Your task to perform on an android device: turn on translation in the chrome app Image 0: 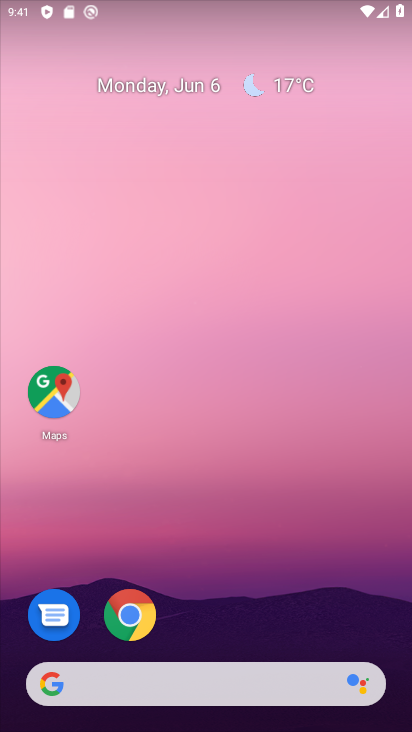
Step 0: click (130, 624)
Your task to perform on an android device: turn on translation in the chrome app Image 1: 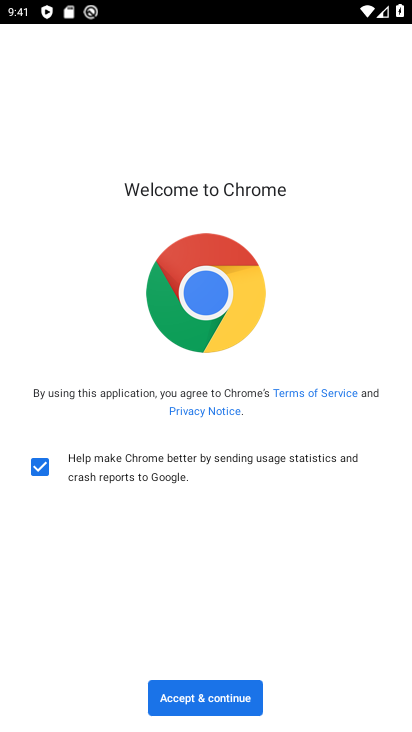
Step 1: click (189, 688)
Your task to perform on an android device: turn on translation in the chrome app Image 2: 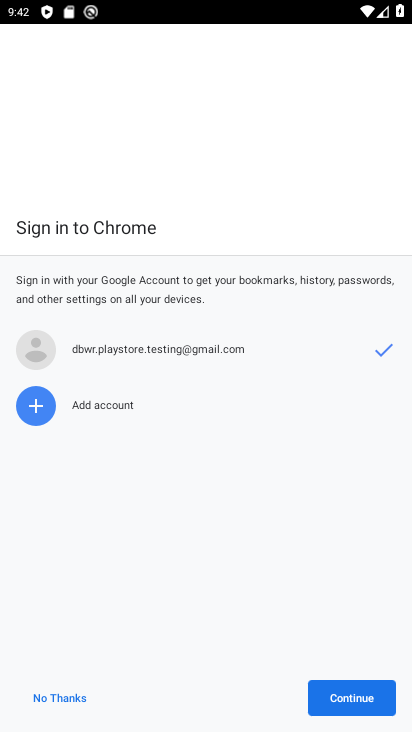
Step 2: click (336, 697)
Your task to perform on an android device: turn on translation in the chrome app Image 3: 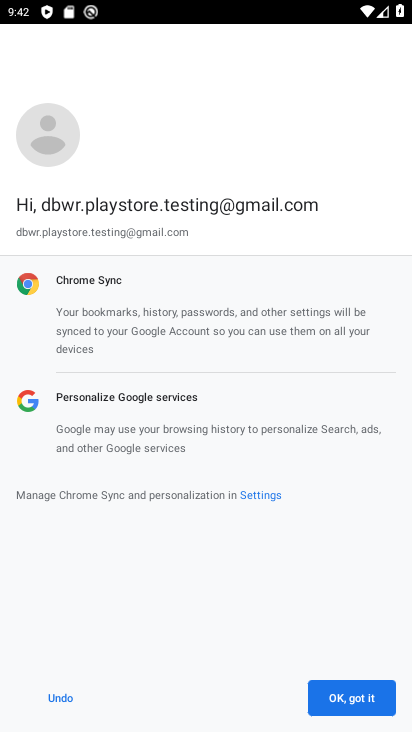
Step 3: click (345, 703)
Your task to perform on an android device: turn on translation in the chrome app Image 4: 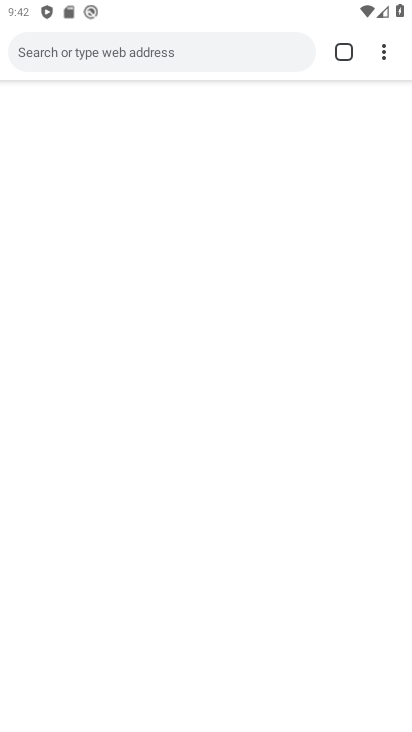
Step 4: drag from (382, 51) to (206, 446)
Your task to perform on an android device: turn on translation in the chrome app Image 5: 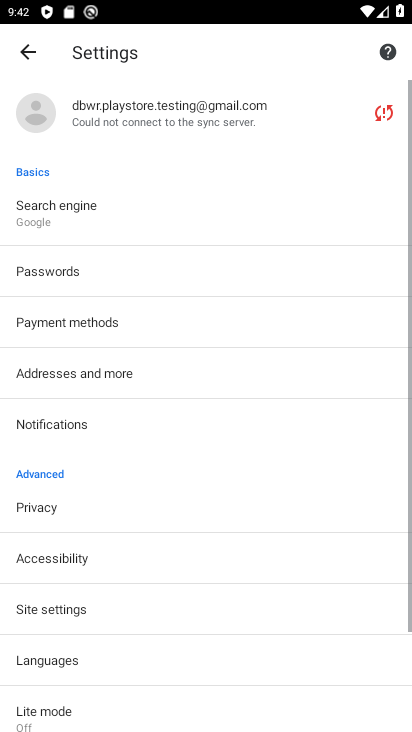
Step 5: click (88, 659)
Your task to perform on an android device: turn on translation in the chrome app Image 6: 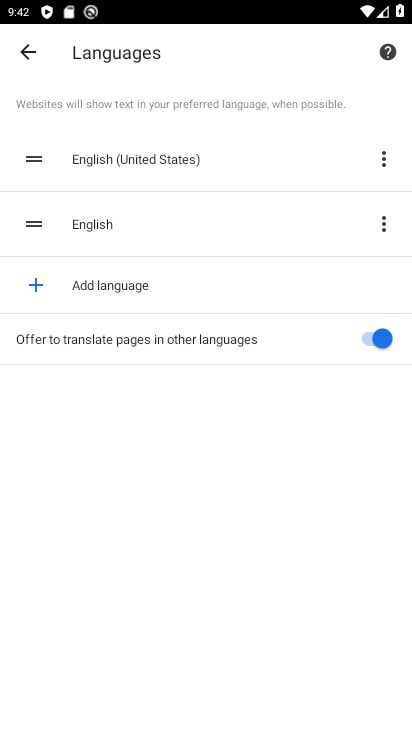
Step 6: task complete